Your task to perform on an android device: add a contact Image 0: 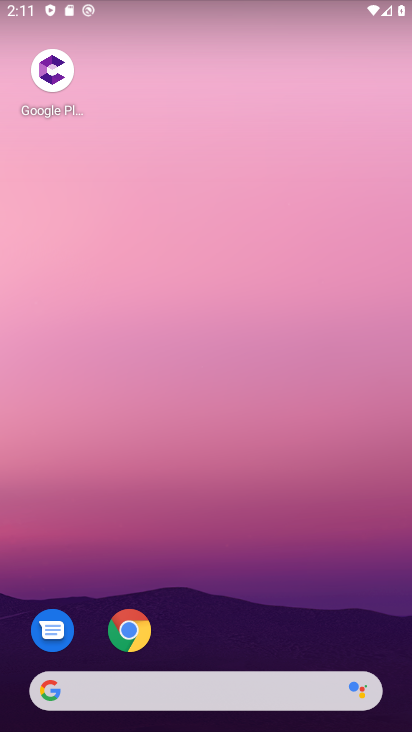
Step 0: drag from (214, 551) to (287, 94)
Your task to perform on an android device: add a contact Image 1: 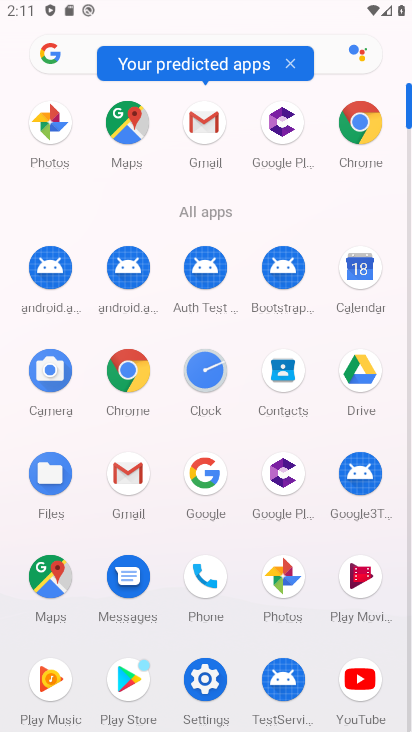
Step 1: click (277, 363)
Your task to perform on an android device: add a contact Image 2: 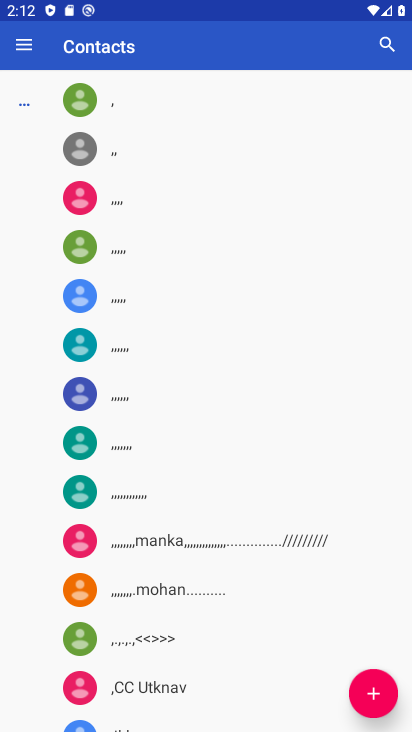
Step 2: click (375, 694)
Your task to perform on an android device: add a contact Image 3: 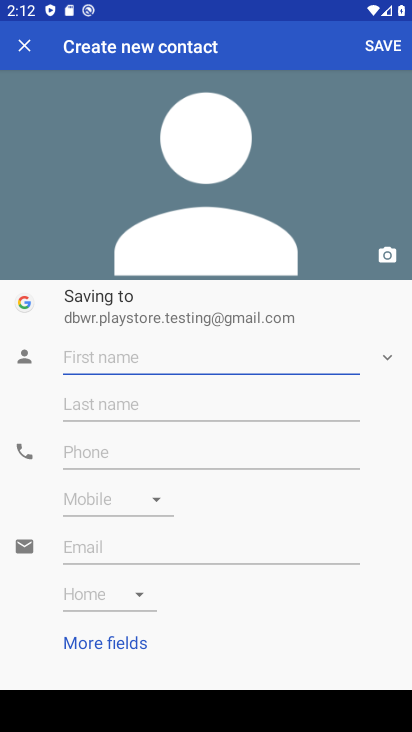
Step 3: type "frshgjgj"
Your task to perform on an android device: add a contact Image 4: 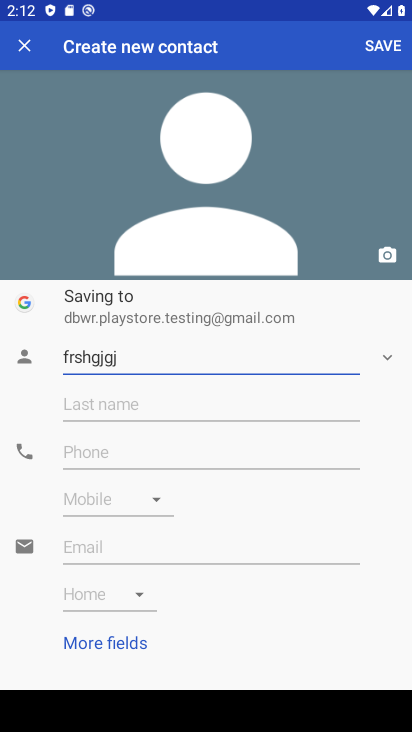
Step 4: click (383, 41)
Your task to perform on an android device: add a contact Image 5: 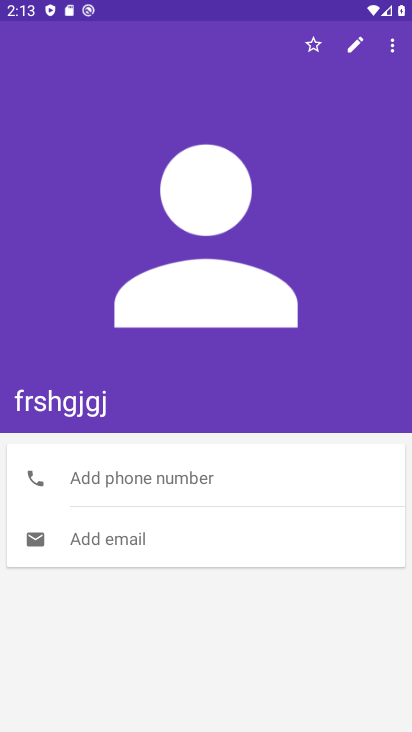
Step 5: task complete